Your task to perform on an android device: read, delete, or share a saved page in the chrome app Image 0: 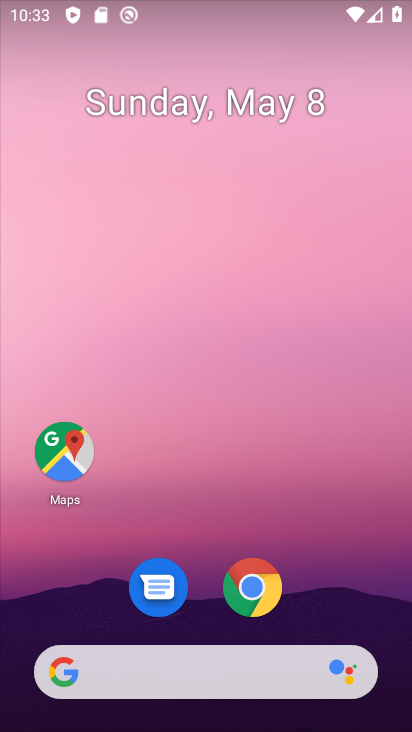
Step 0: drag from (374, 624) to (0, 45)
Your task to perform on an android device: read, delete, or share a saved page in the chrome app Image 1: 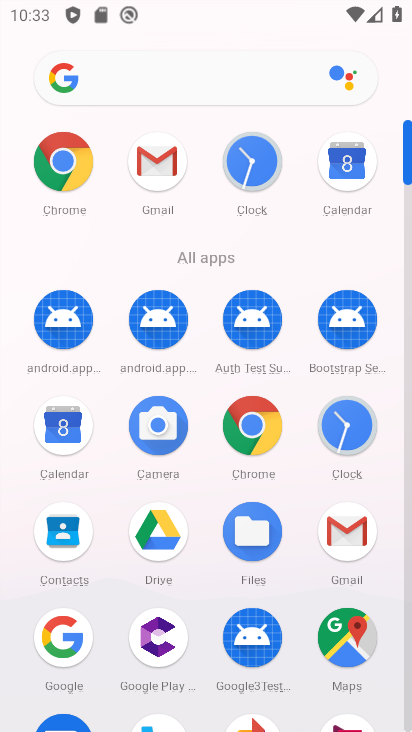
Step 1: click (58, 164)
Your task to perform on an android device: read, delete, or share a saved page in the chrome app Image 2: 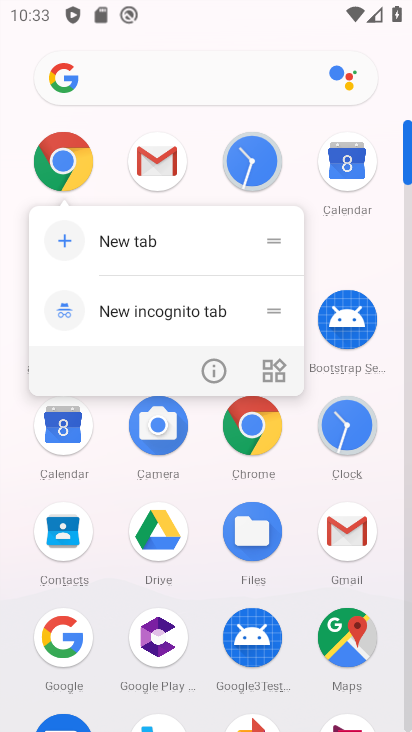
Step 2: click (140, 244)
Your task to perform on an android device: read, delete, or share a saved page in the chrome app Image 3: 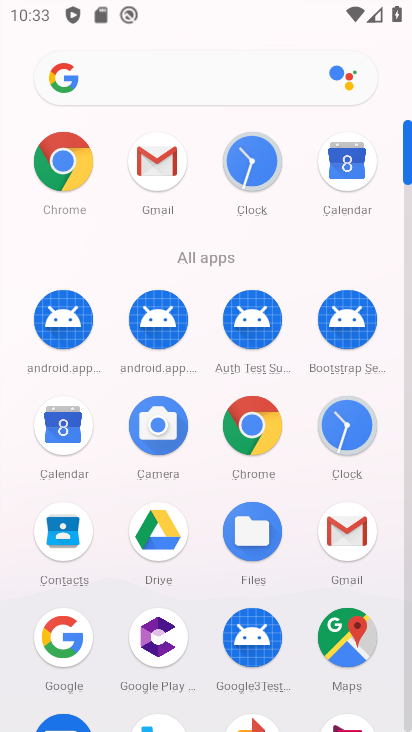
Step 3: click (141, 243)
Your task to perform on an android device: read, delete, or share a saved page in the chrome app Image 4: 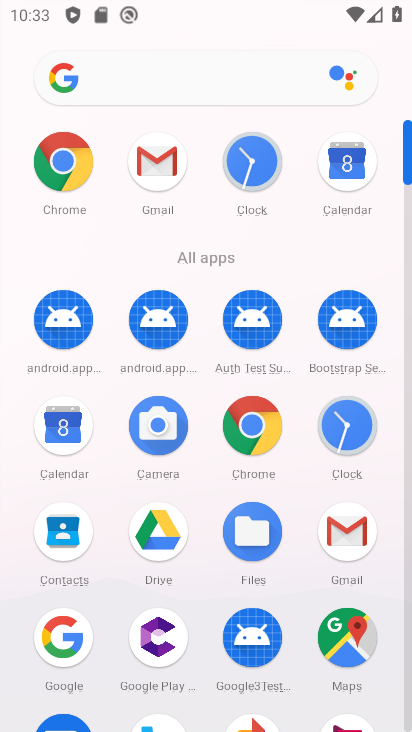
Step 4: click (141, 243)
Your task to perform on an android device: read, delete, or share a saved page in the chrome app Image 5: 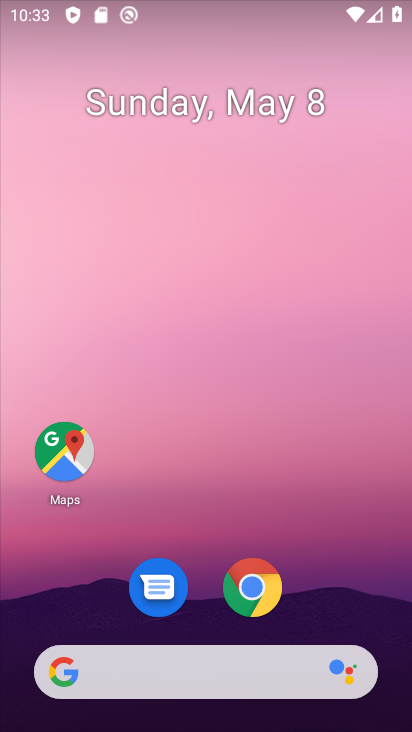
Step 5: drag from (369, 564) to (126, 0)
Your task to perform on an android device: read, delete, or share a saved page in the chrome app Image 6: 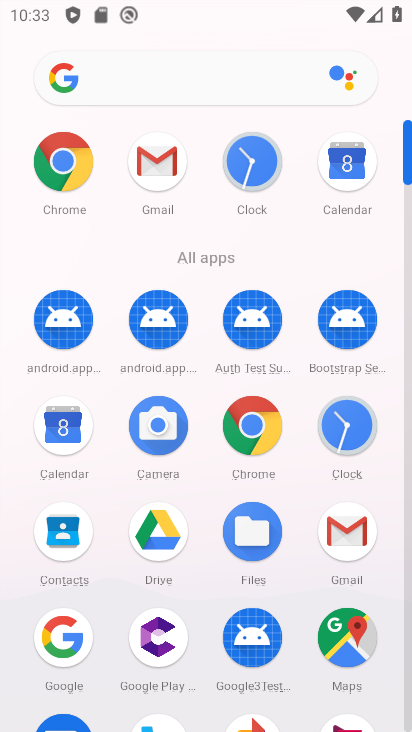
Step 6: click (61, 161)
Your task to perform on an android device: read, delete, or share a saved page in the chrome app Image 7: 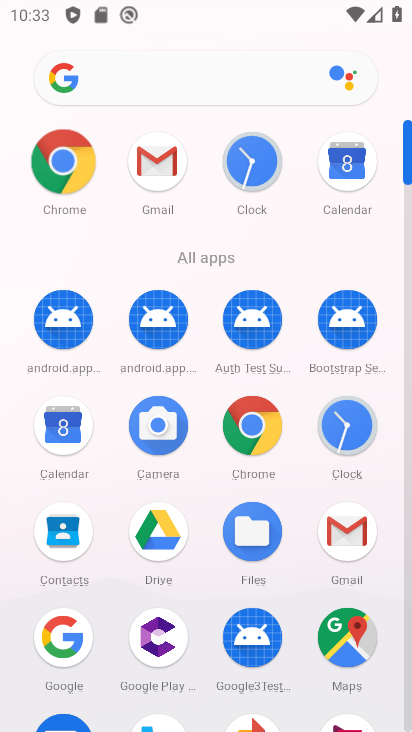
Step 7: click (60, 160)
Your task to perform on an android device: read, delete, or share a saved page in the chrome app Image 8: 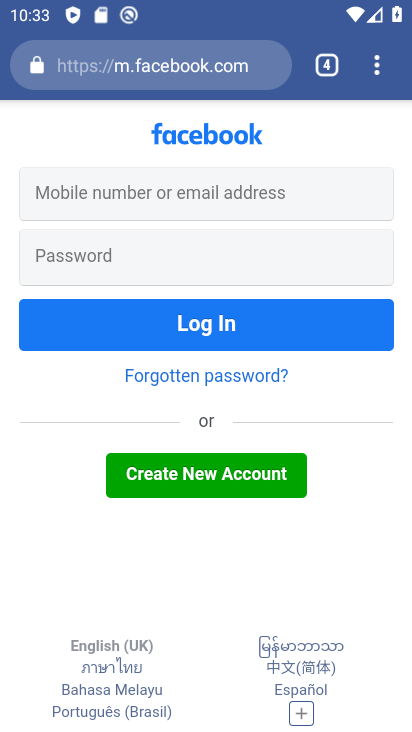
Step 8: drag from (382, 65) to (129, 122)
Your task to perform on an android device: read, delete, or share a saved page in the chrome app Image 9: 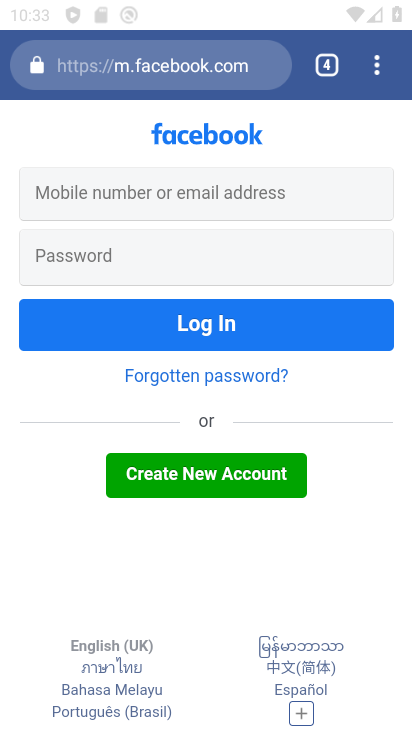
Step 9: click (129, 122)
Your task to perform on an android device: read, delete, or share a saved page in the chrome app Image 10: 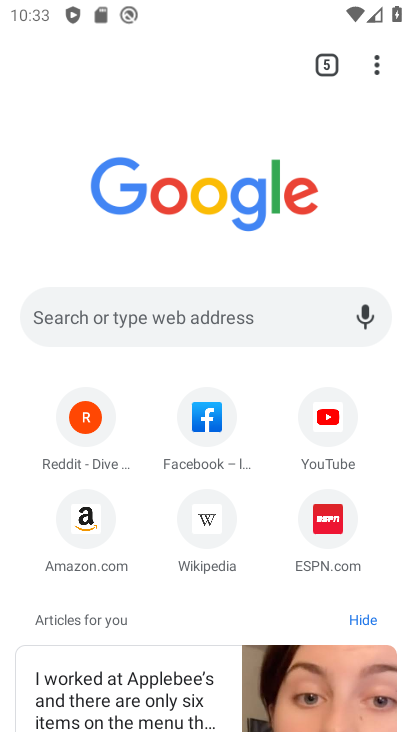
Step 10: drag from (373, 57) to (373, 335)
Your task to perform on an android device: read, delete, or share a saved page in the chrome app Image 11: 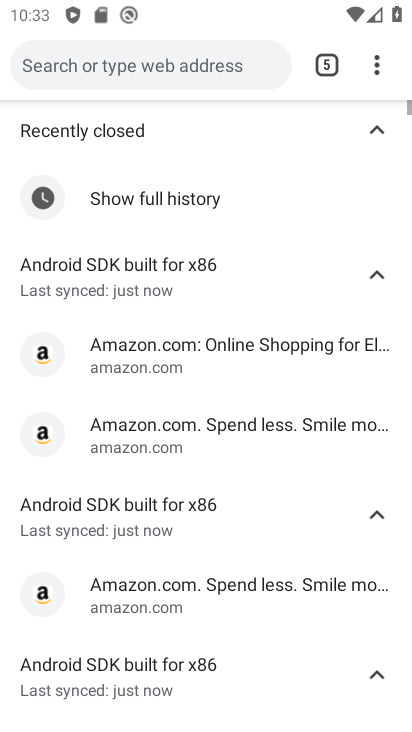
Step 11: click (364, 62)
Your task to perform on an android device: read, delete, or share a saved page in the chrome app Image 12: 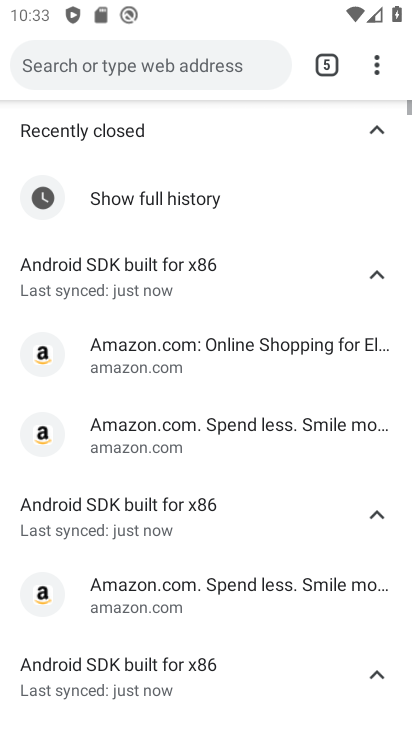
Step 12: click (367, 64)
Your task to perform on an android device: read, delete, or share a saved page in the chrome app Image 13: 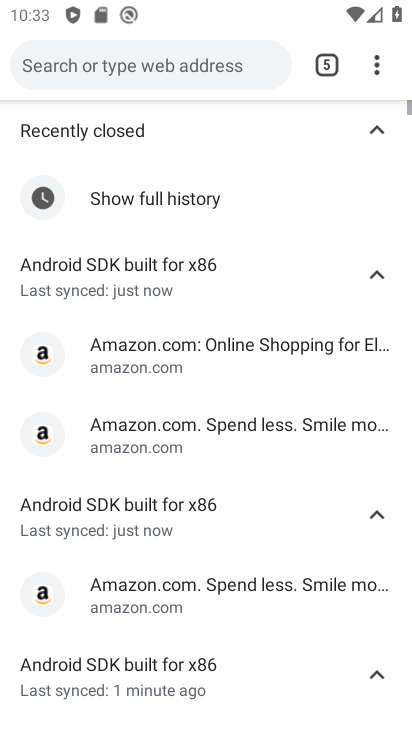
Step 13: drag from (372, 59) to (158, 428)
Your task to perform on an android device: read, delete, or share a saved page in the chrome app Image 14: 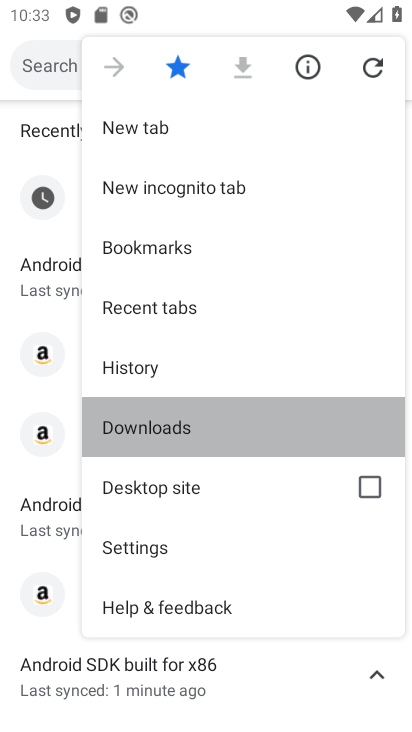
Step 14: click (158, 428)
Your task to perform on an android device: read, delete, or share a saved page in the chrome app Image 15: 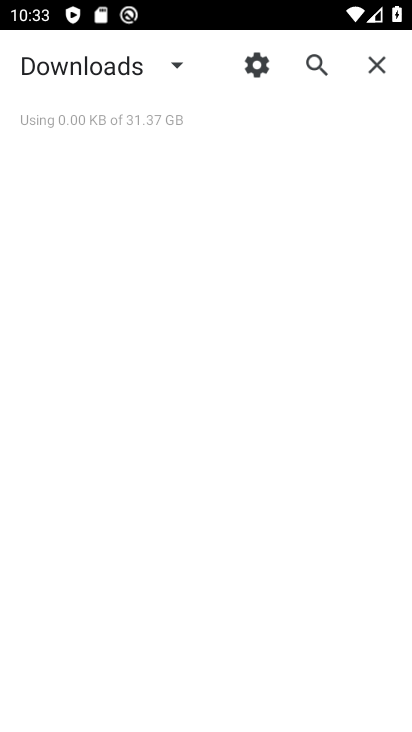
Step 15: click (176, 67)
Your task to perform on an android device: read, delete, or share a saved page in the chrome app Image 16: 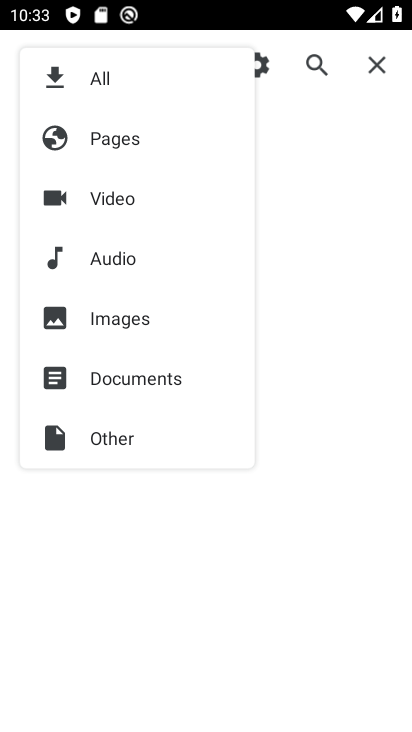
Step 16: click (105, 135)
Your task to perform on an android device: read, delete, or share a saved page in the chrome app Image 17: 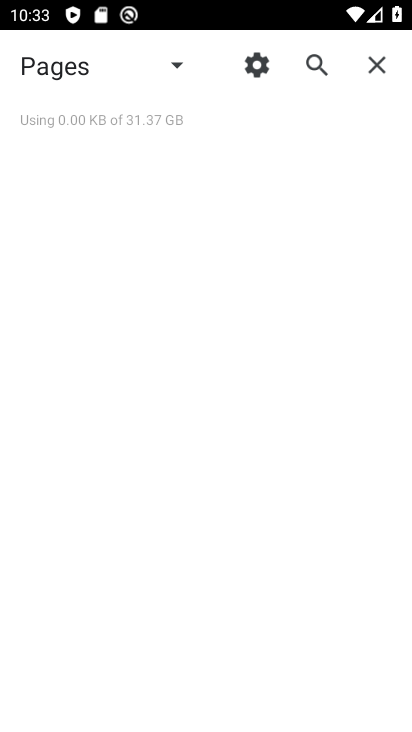
Step 17: task complete